Your task to perform on an android device: When is my next appointment? Image 0: 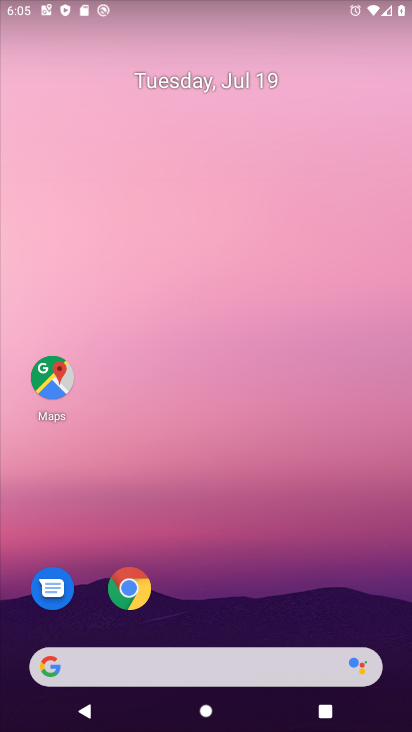
Step 0: click (159, 81)
Your task to perform on an android device: When is my next appointment? Image 1: 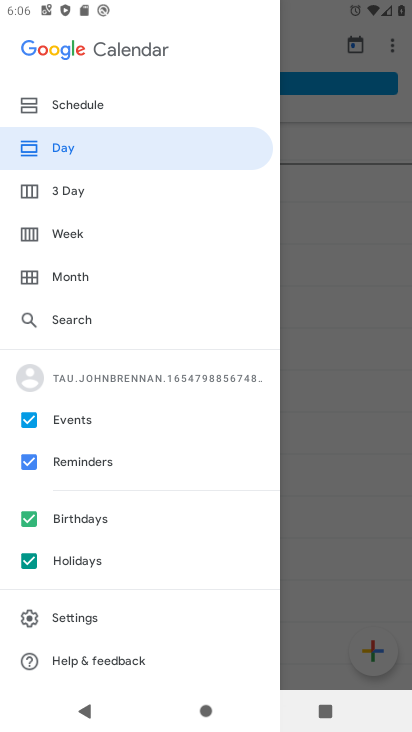
Step 1: click (159, 81)
Your task to perform on an android device: When is my next appointment? Image 2: 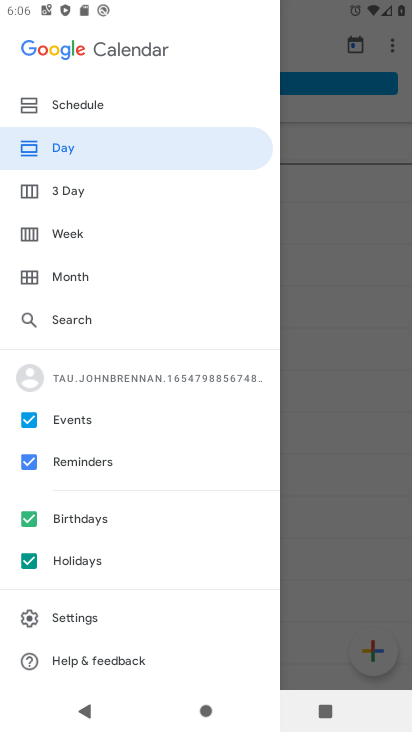
Step 2: click (314, 392)
Your task to perform on an android device: When is my next appointment? Image 3: 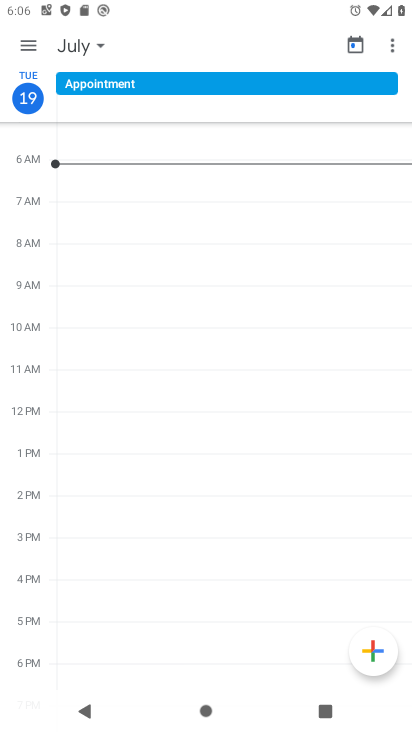
Step 3: task complete